Your task to perform on an android device: Do I have any events today? Image 0: 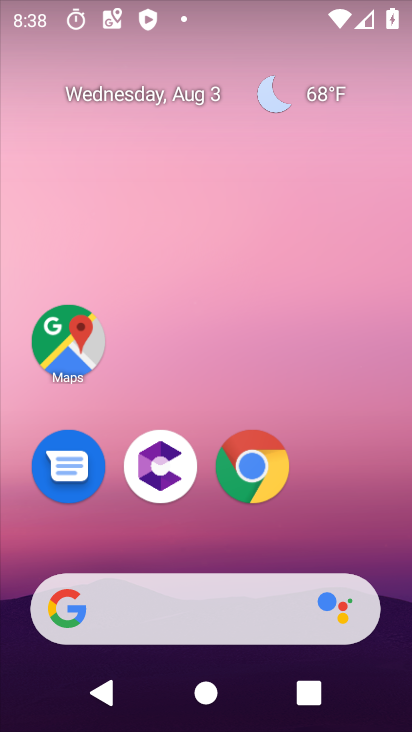
Step 0: drag from (348, 550) to (341, 135)
Your task to perform on an android device: Do I have any events today? Image 1: 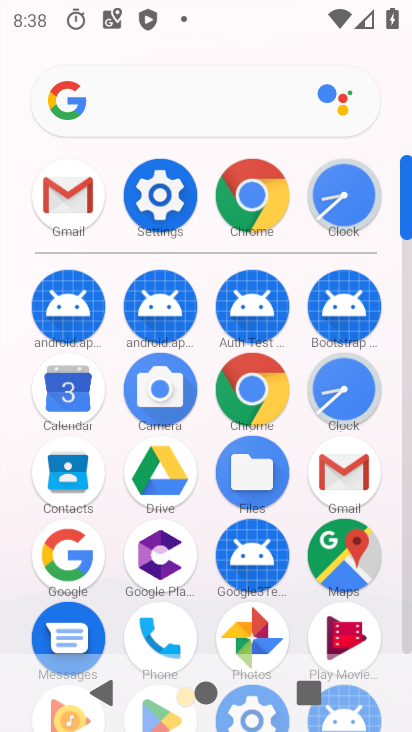
Step 1: click (63, 393)
Your task to perform on an android device: Do I have any events today? Image 2: 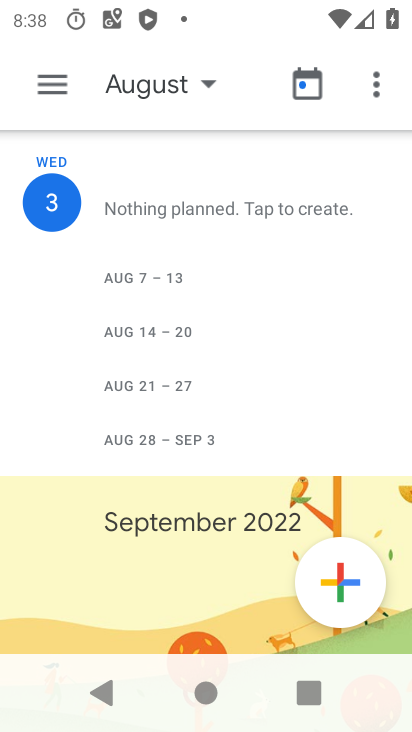
Step 2: task complete